Your task to perform on an android device: uninstall "Google Find My Device" Image 0: 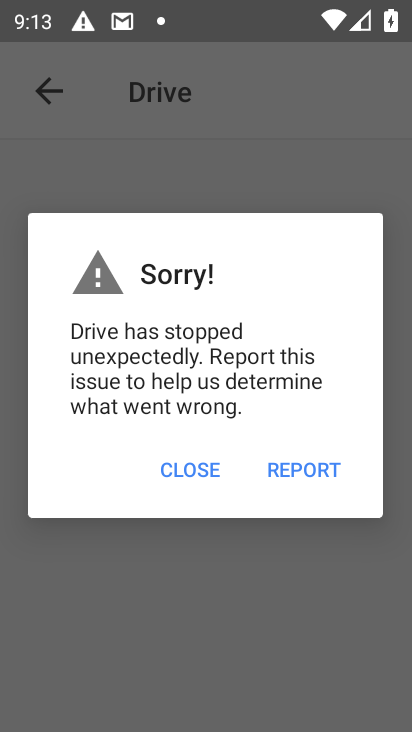
Step 0: press home button
Your task to perform on an android device: uninstall "Google Find My Device" Image 1: 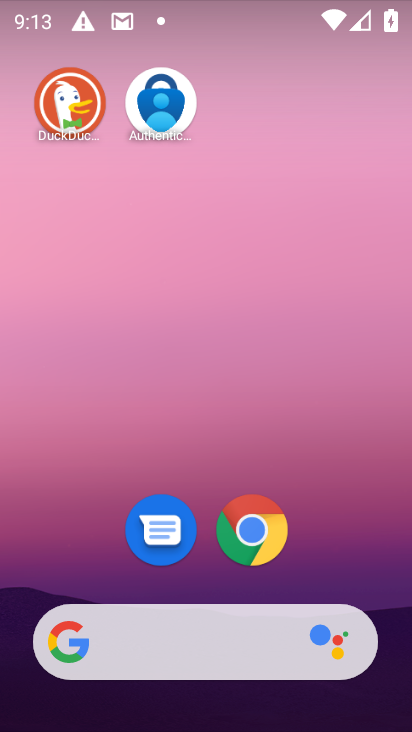
Step 1: drag from (93, 716) to (248, 39)
Your task to perform on an android device: uninstall "Google Find My Device" Image 2: 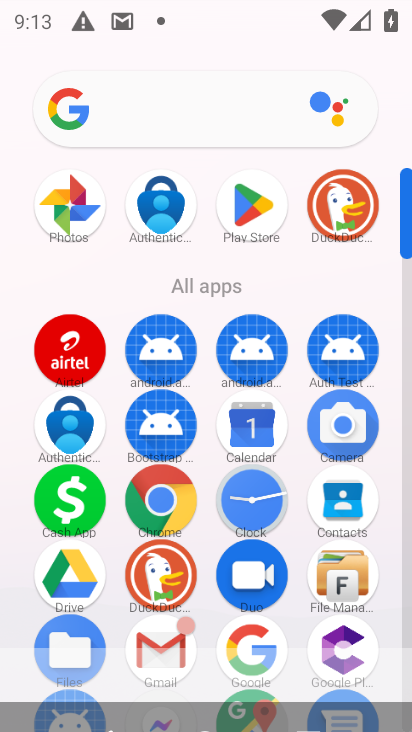
Step 2: click (237, 201)
Your task to perform on an android device: uninstall "Google Find My Device" Image 3: 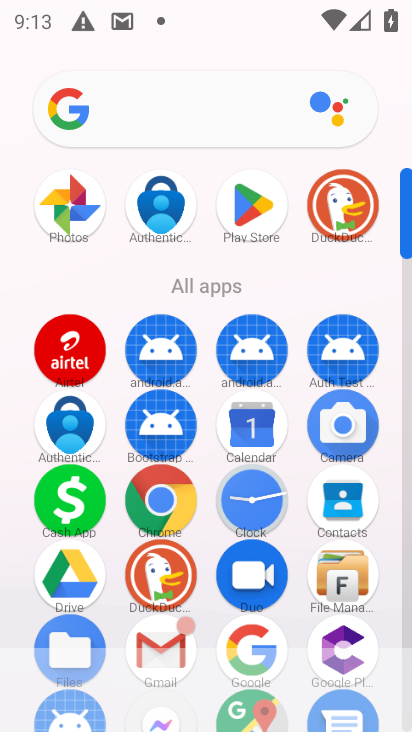
Step 3: click (237, 201)
Your task to perform on an android device: uninstall "Google Find My Device" Image 4: 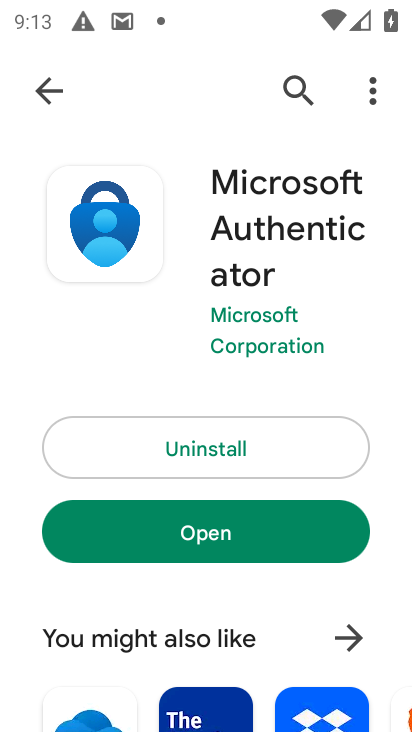
Step 4: click (286, 83)
Your task to perform on an android device: uninstall "Google Find My Device" Image 5: 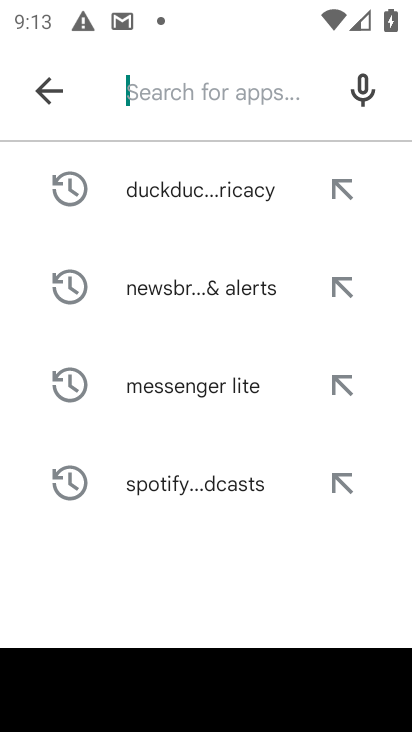
Step 5: type "google find my device "
Your task to perform on an android device: uninstall "Google Find My Device" Image 6: 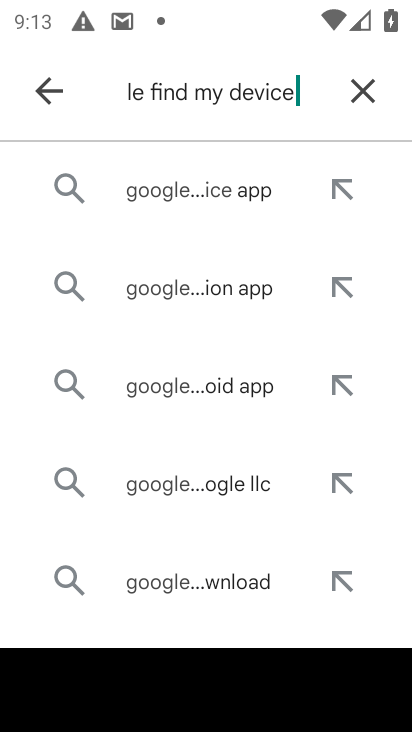
Step 6: click (249, 184)
Your task to perform on an android device: uninstall "Google Find My Device" Image 7: 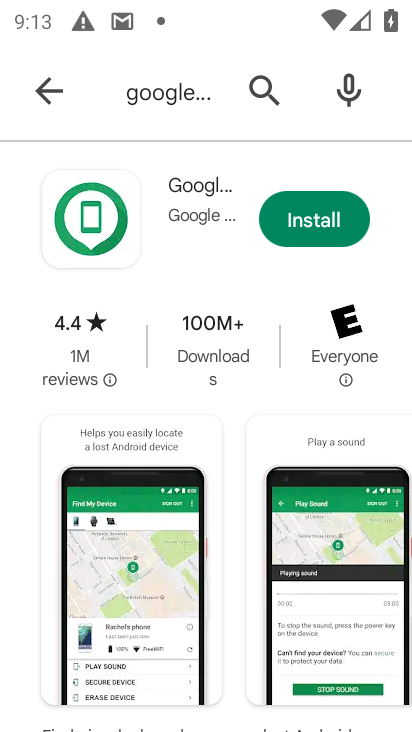
Step 7: task complete